Your task to perform on an android device: change alarm snooze length Image 0: 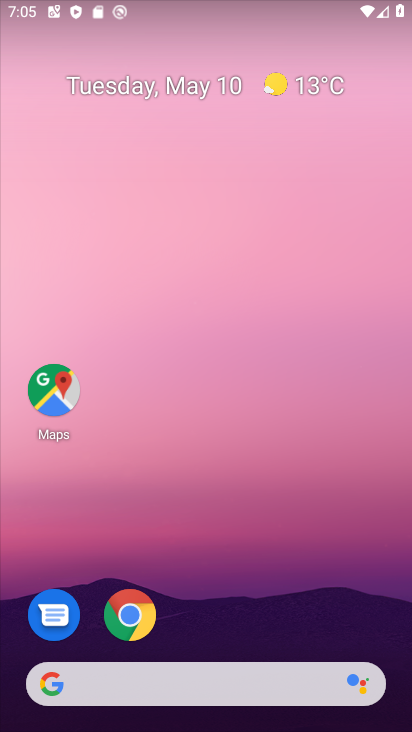
Step 0: drag from (296, 213) to (276, 105)
Your task to perform on an android device: change alarm snooze length Image 1: 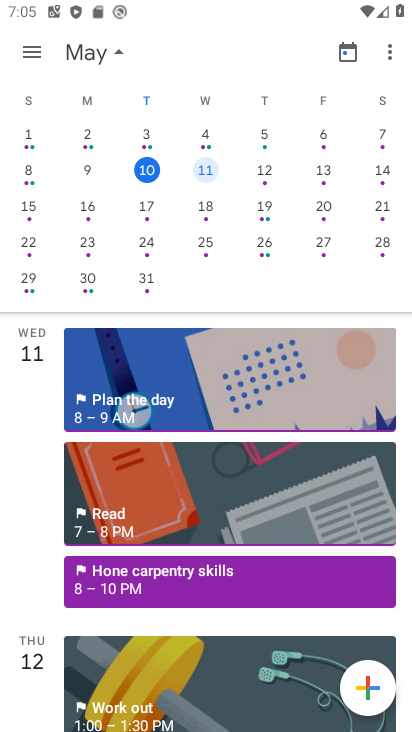
Step 1: press home button
Your task to perform on an android device: change alarm snooze length Image 2: 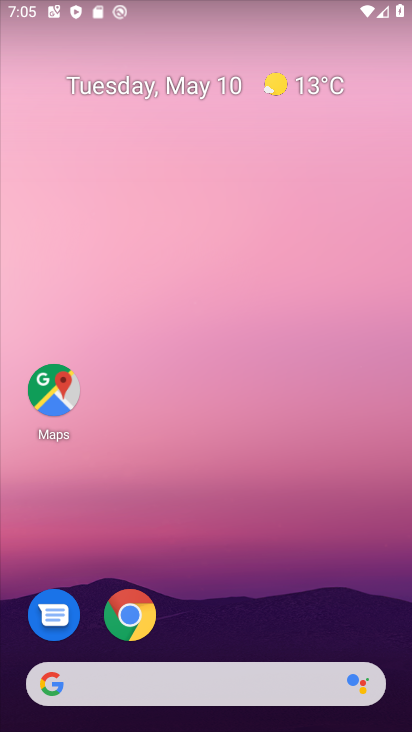
Step 2: drag from (233, 638) to (257, 43)
Your task to perform on an android device: change alarm snooze length Image 3: 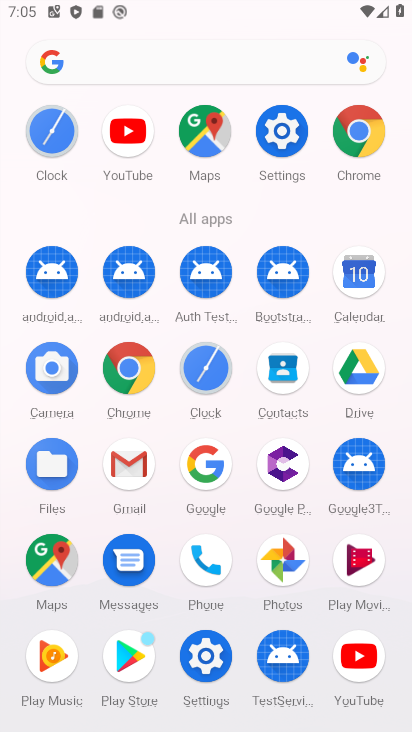
Step 3: click (204, 138)
Your task to perform on an android device: change alarm snooze length Image 4: 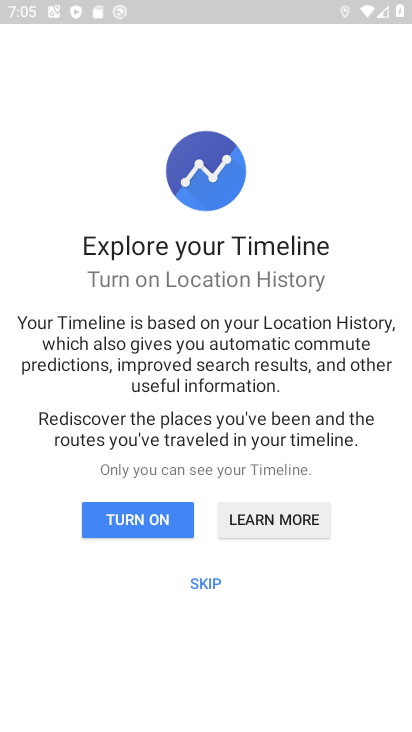
Step 4: press home button
Your task to perform on an android device: change alarm snooze length Image 5: 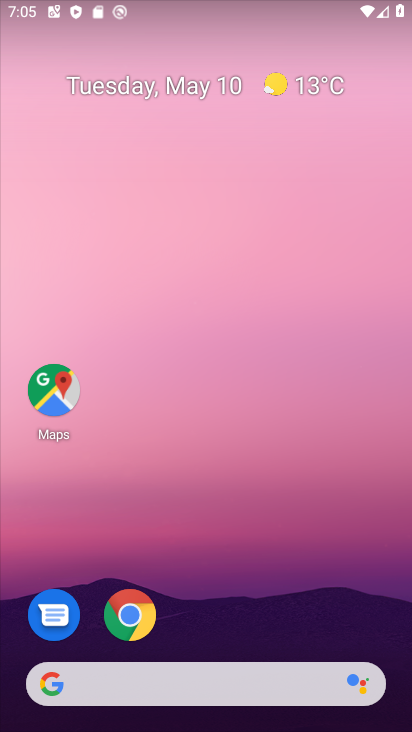
Step 5: drag from (334, 592) to (340, 156)
Your task to perform on an android device: change alarm snooze length Image 6: 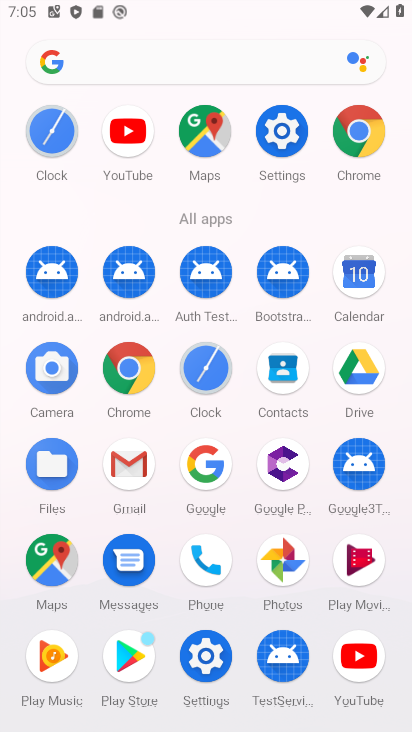
Step 6: click (200, 382)
Your task to perform on an android device: change alarm snooze length Image 7: 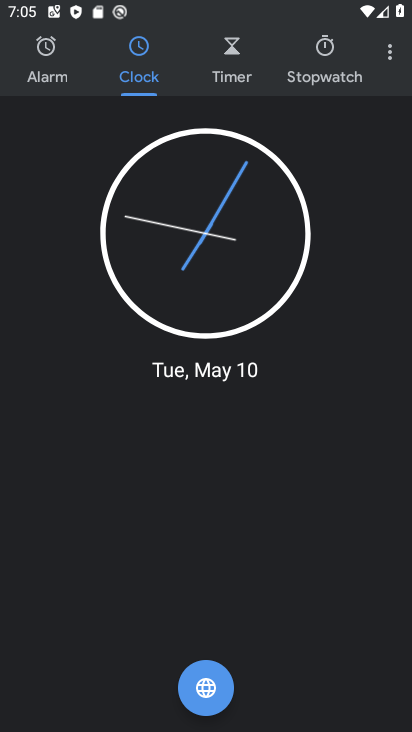
Step 7: click (392, 45)
Your task to perform on an android device: change alarm snooze length Image 8: 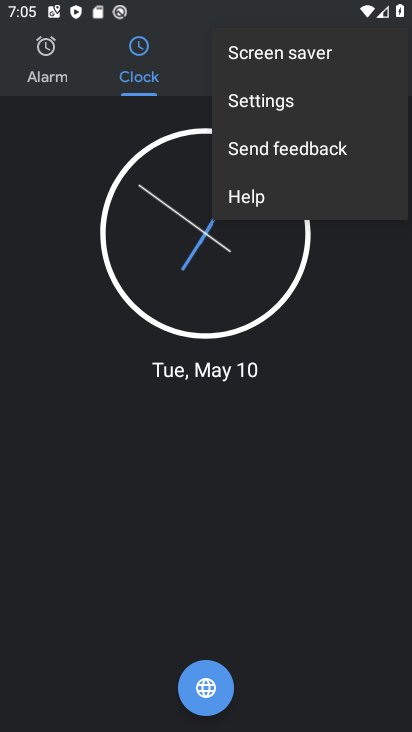
Step 8: click (249, 110)
Your task to perform on an android device: change alarm snooze length Image 9: 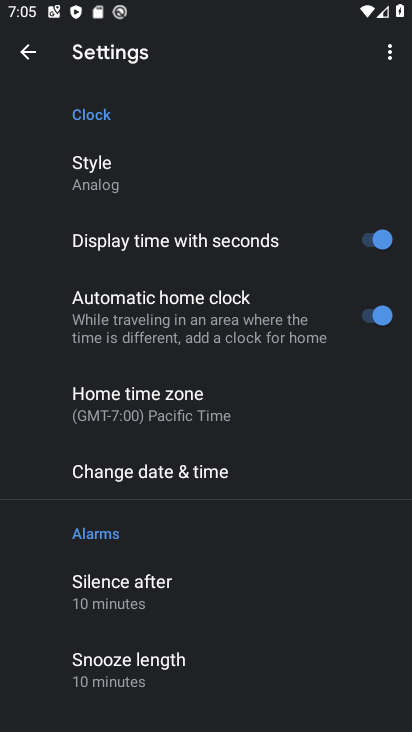
Step 9: drag from (240, 595) to (196, 183)
Your task to perform on an android device: change alarm snooze length Image 10: 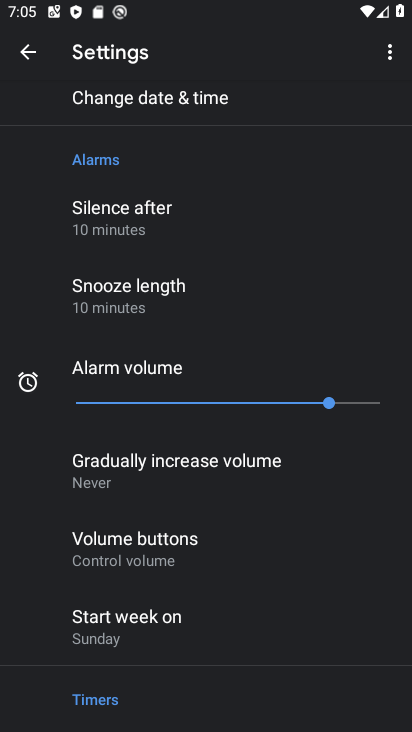
Step 10: click (146, 310)
Your task to perform on an android device: change alarm snooze length Image 11: 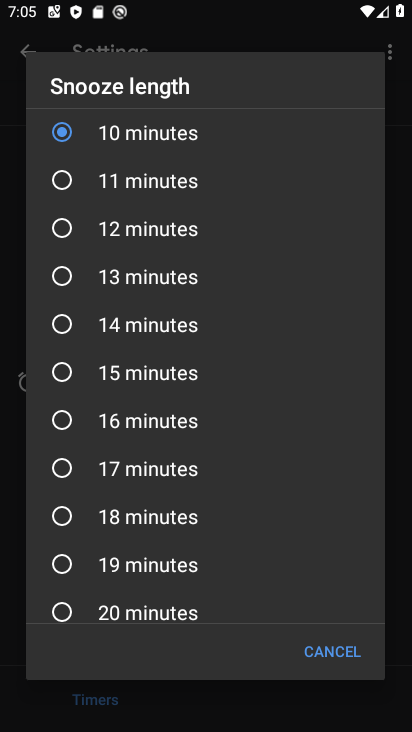
Step 11: click (68, 385)
Your task to perform on an android device: change alarm snooze length Image 12: 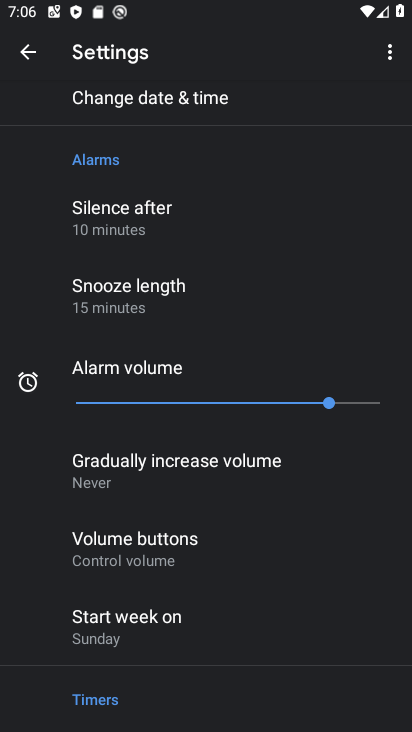
Step 12: task complete